Your task to perform on an android device: open chrome privacy settings Image 0: 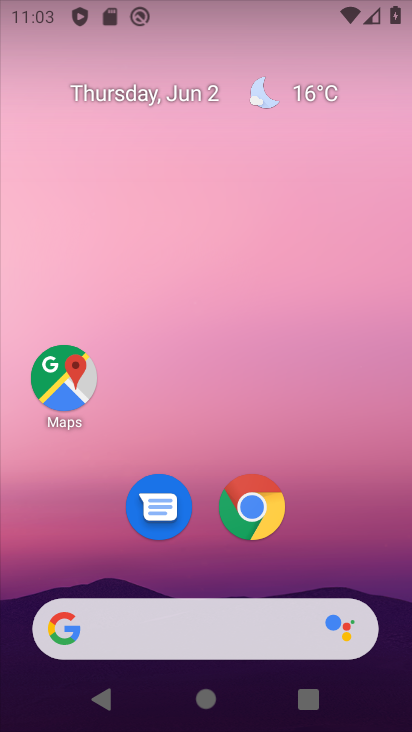
Step 0: drag from (338, 183) to (330, 105)
Your task to perform on an android device: open chrome privacy settings Image 1: 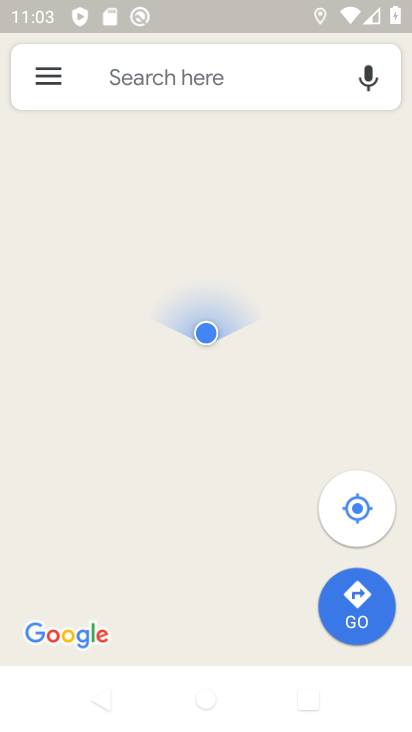
Step 1: press home button
Your task to perform on an android device: open chrome privacy settings Image 2: 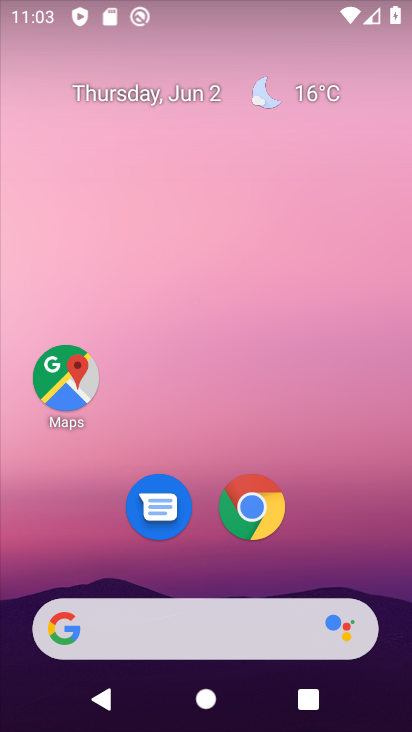
Step 2: drag from (376, 558) to (344, 138)
Your task to perform on an android device: open chrome privacy settings Image 3: 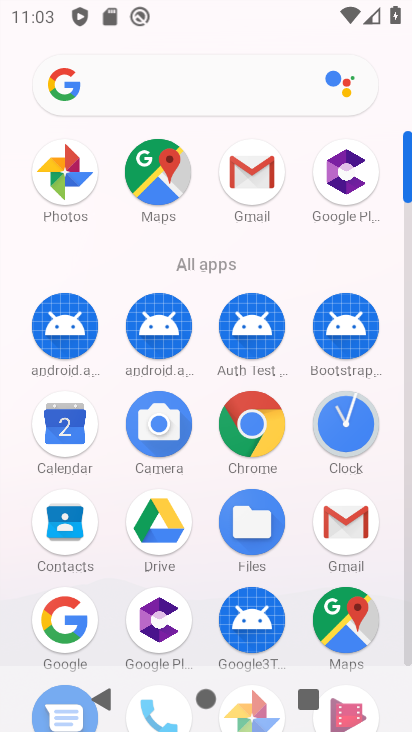
Step 3: click (251, 392)
Your task to perform on an android device: open chrome privacy settings Image 4: 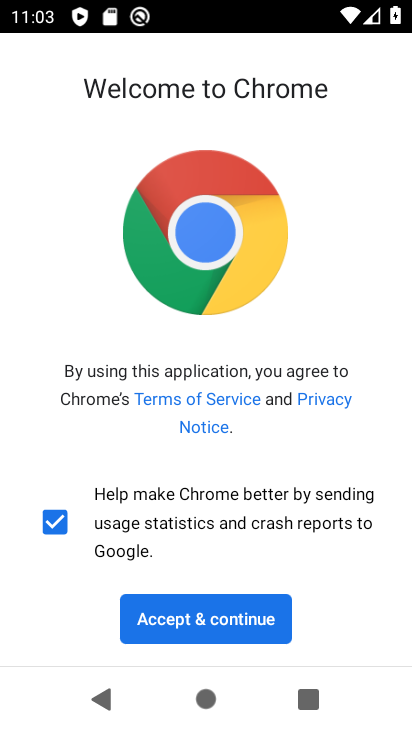
Step 4: click (244, 638)
Your task to perform on an android device: open chrome privacy settings Image 5: 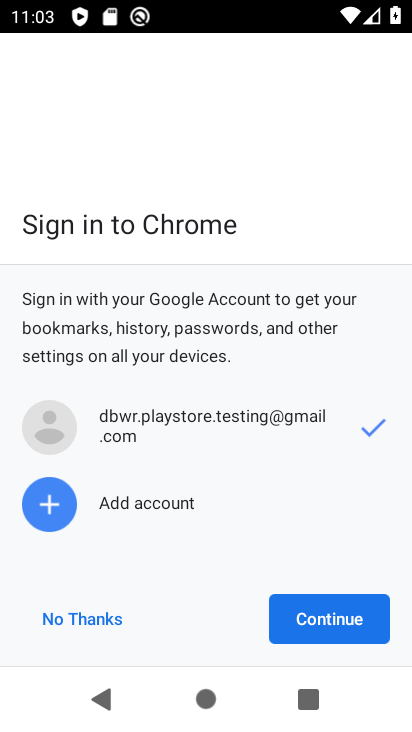
Step 5: click (336, 620)
Your task to perform on an android device: open chrome privacy settings Image 6: 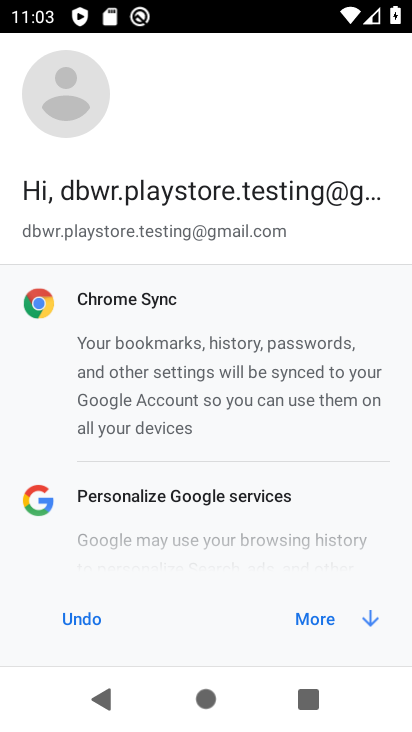
Step 6: click (323, 612)
Your task to perform on an android device: open chrome privacy settings Image 7: 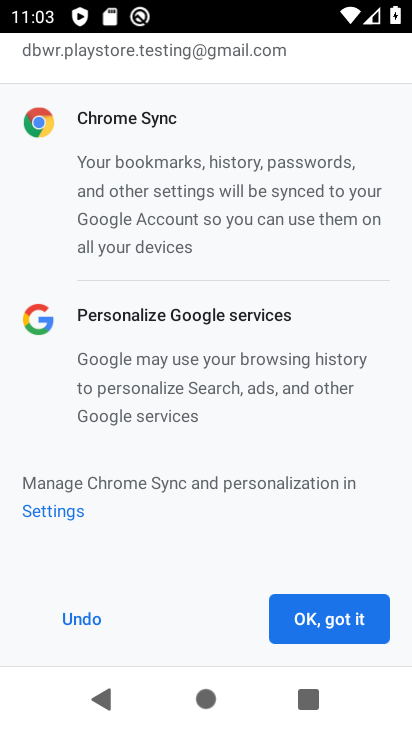
Step 7: click (317, 604)
Your task to perform on an android device: open chrome privacy settings Image 8: 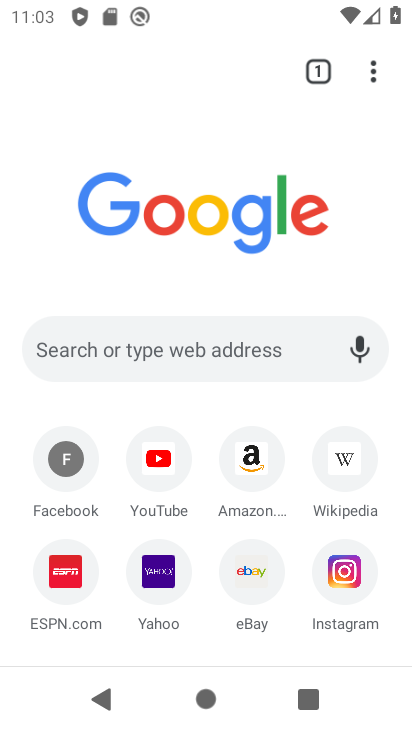
Step 8: click (364, 85)
Your task to perform on an android device: open chrome privacy settings Image 9: 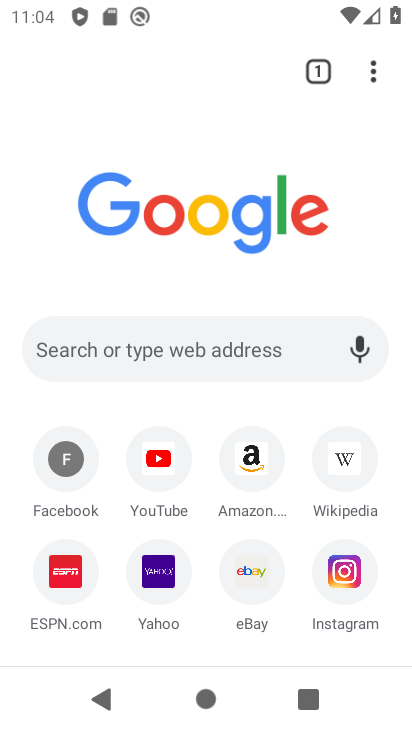
Step 9: drag from (366, 81) to (248, 512)
Your task to perform on an android device: open chrome privacy settings Image 10: 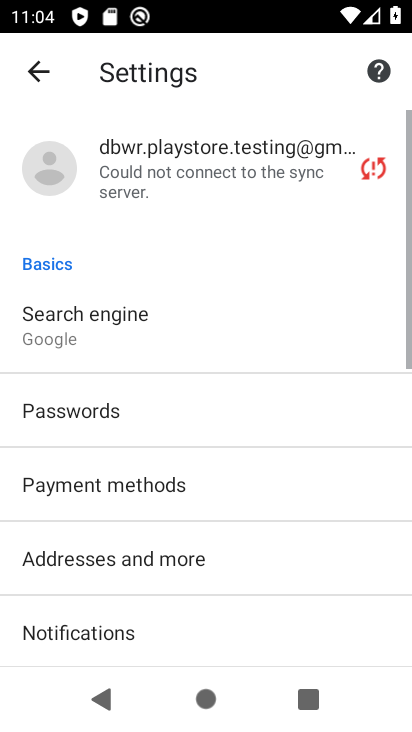
Step 10: drag from (232, 602) to (263, 278)
Your task to perform on an android device: open chrome privacy settings Image 11: 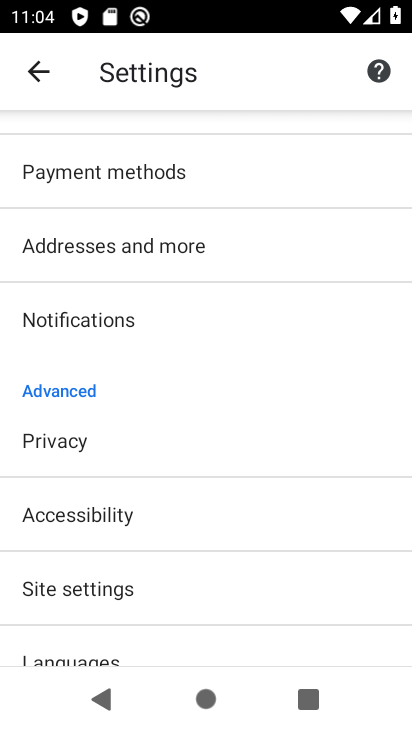
Step 11: click (230, 442)
Your task to perform on an android device: open chrome privacy settings Image 12: 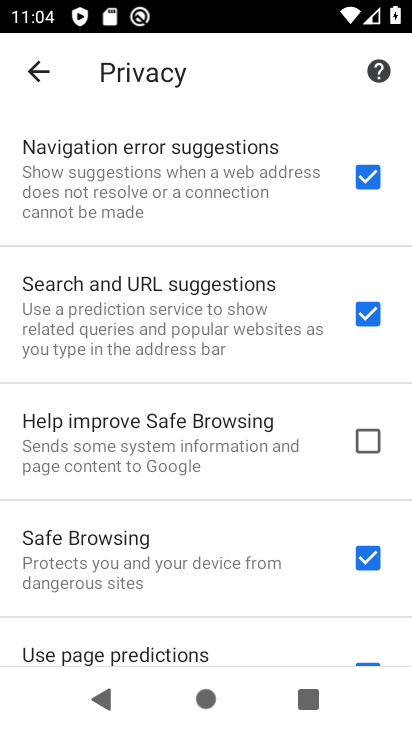
Step 12: task complete